Your task to perform on an android device: Open settings on Google Maps Image 0: 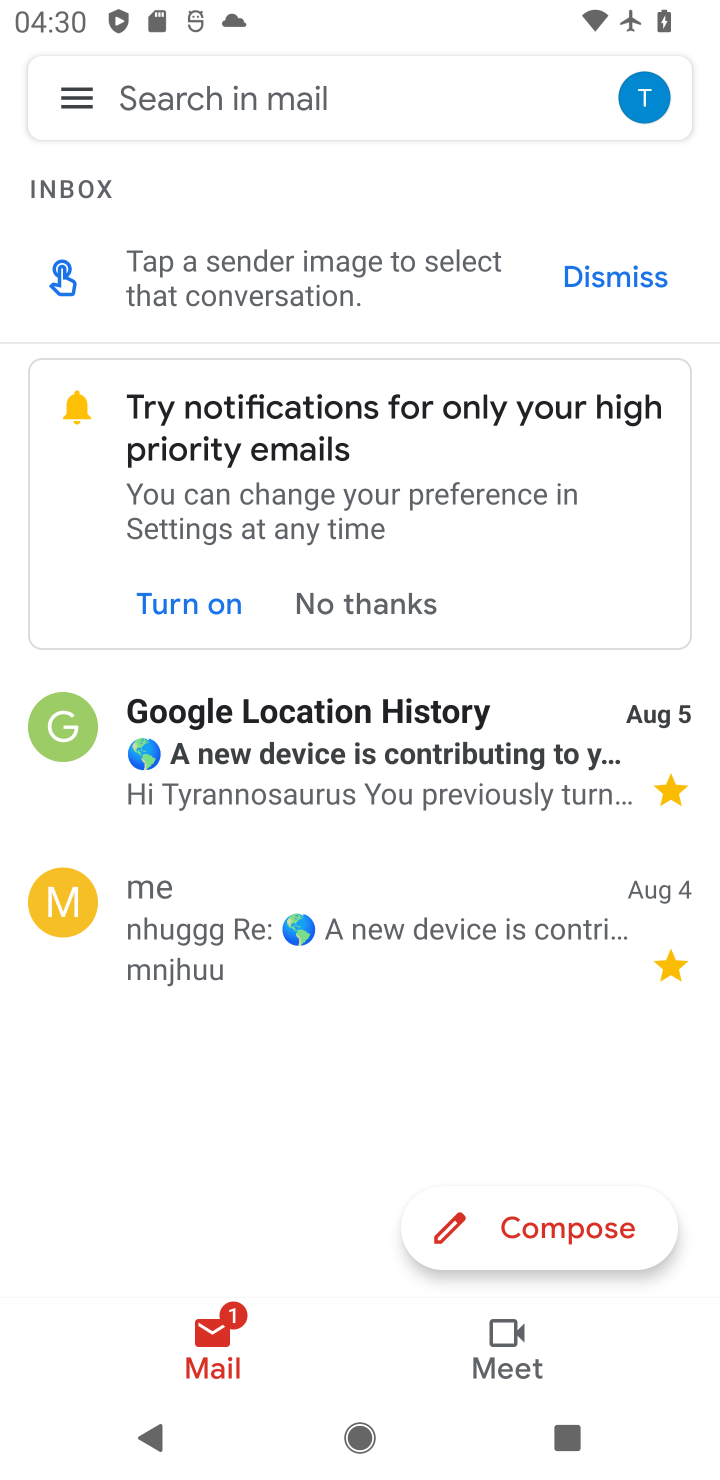
Step 0: press home button
Your task to perform on an android device: Open settings on Google Maps Image 1: 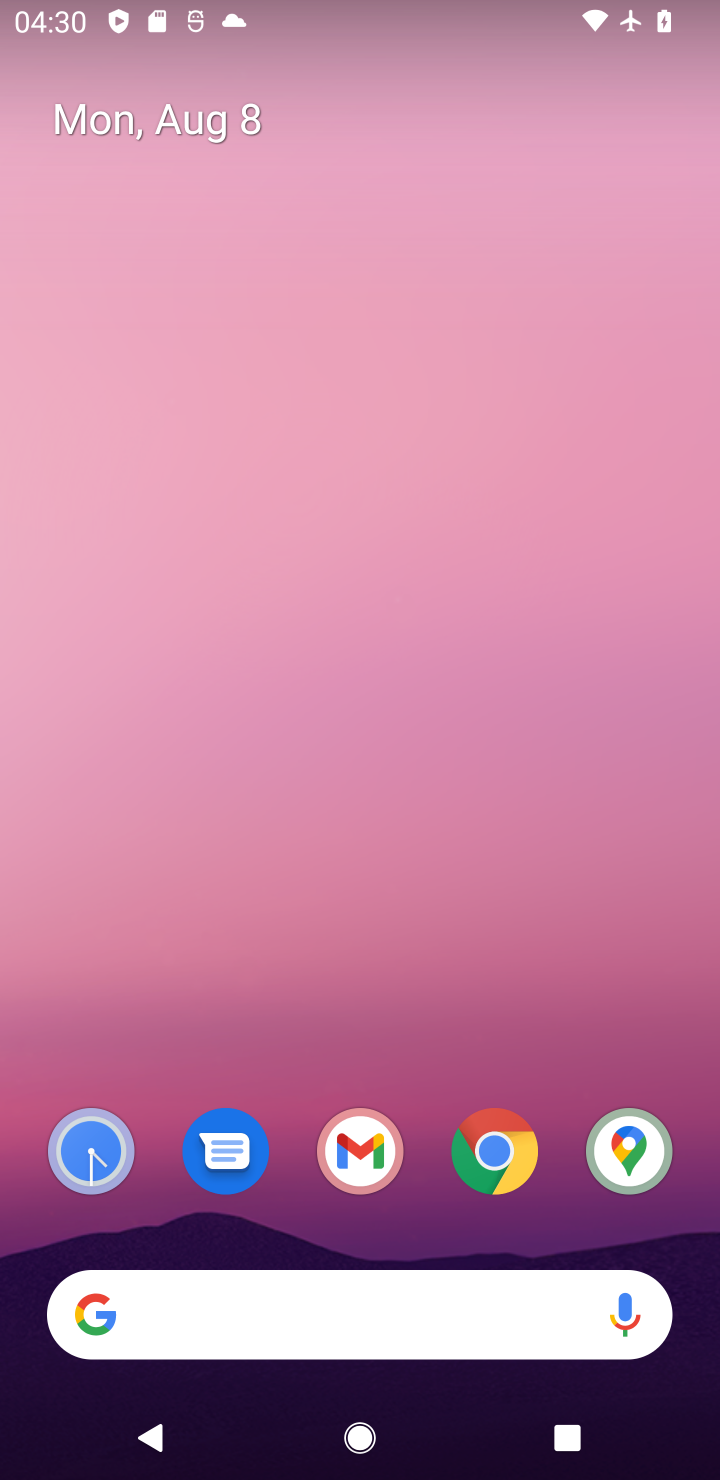
Step 1: click (623, 1150)
Your task to perform on an android device: Open settings on Google Maps Image 2: 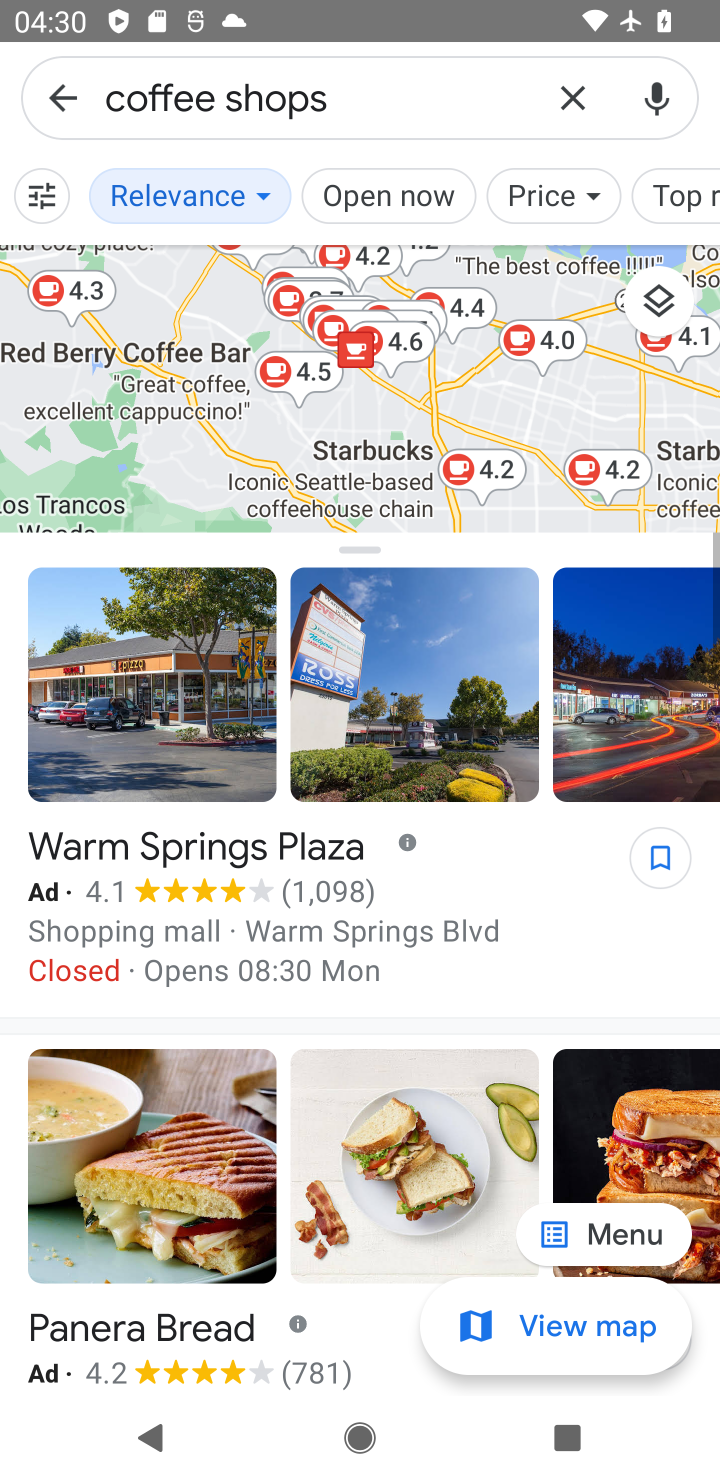
Step 2: click (66, 100)
Your task to perform on an android device: Open settings on Google Maps Image 3: 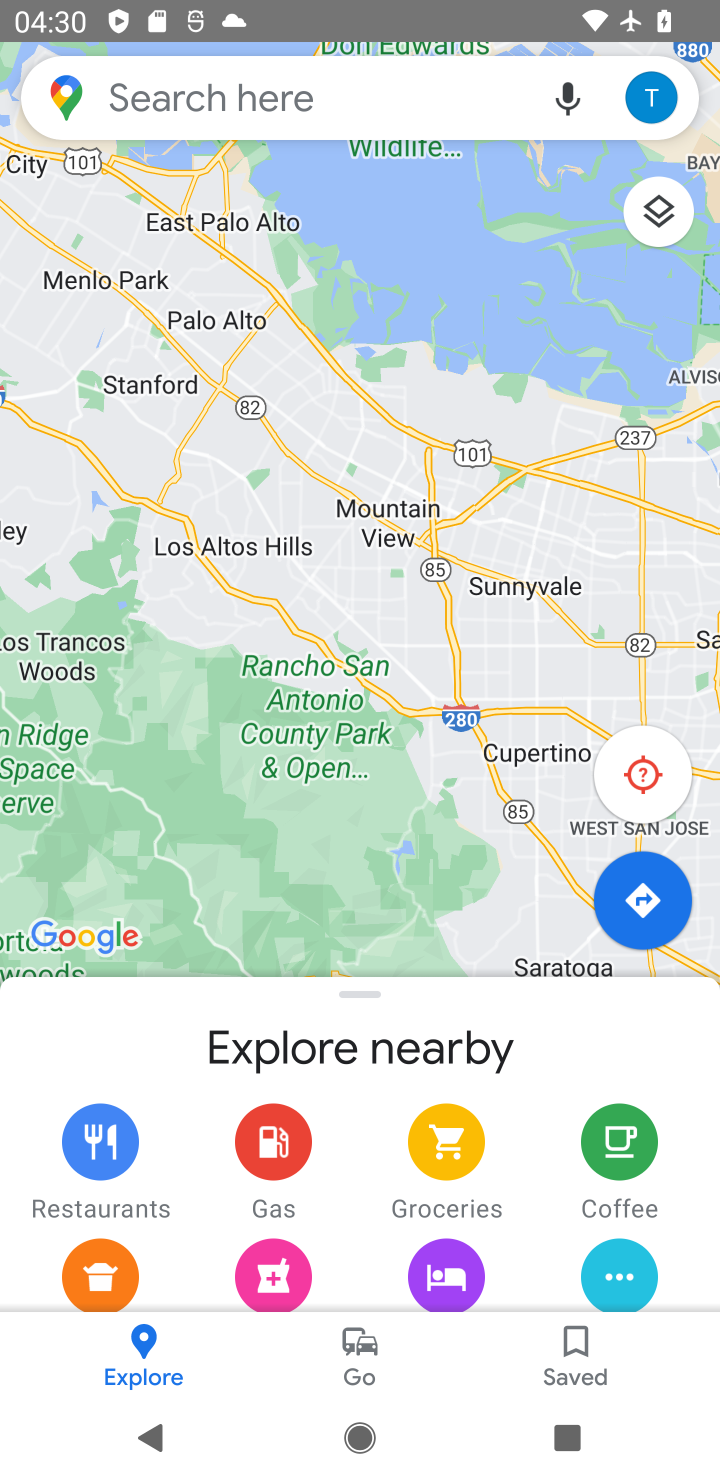
Step 3: click (657, 104)
Your task to perform on an android device: Open settings on Google Maps Image 4: 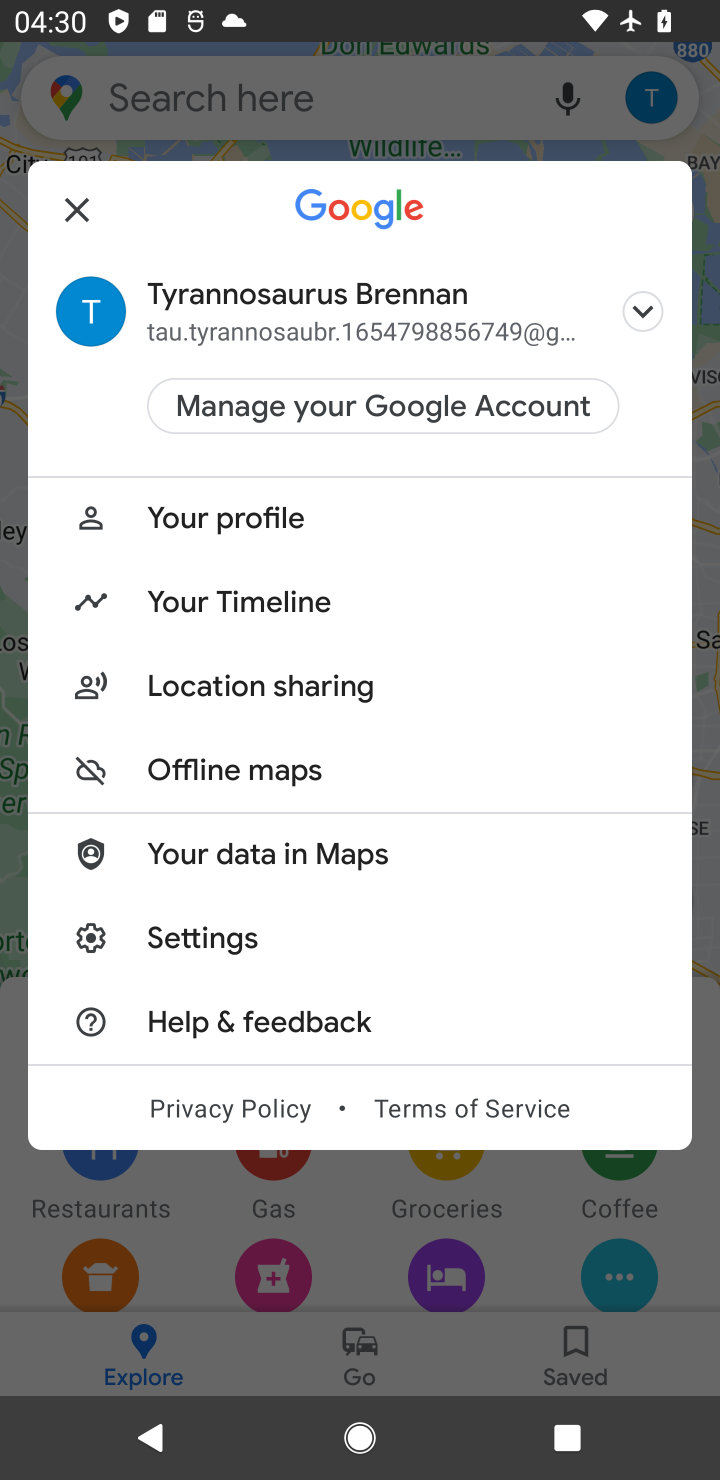
Step 4: click (240, 927)
Your task to perform on an android device: Open settings on Google Maps Image 5: 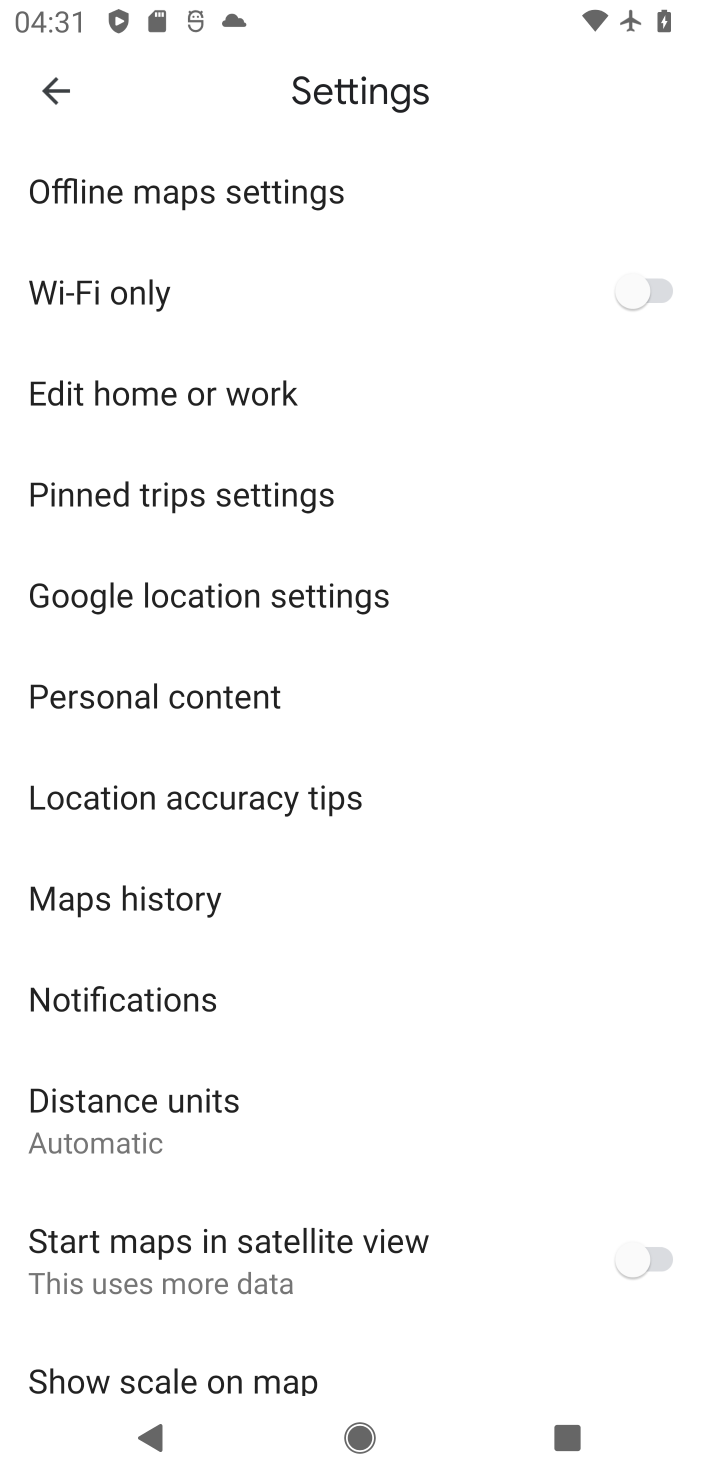
Step 5: task complete